Your task to perform on an android device: open app "Mercado Libre" (install if not already installed) Image 0: 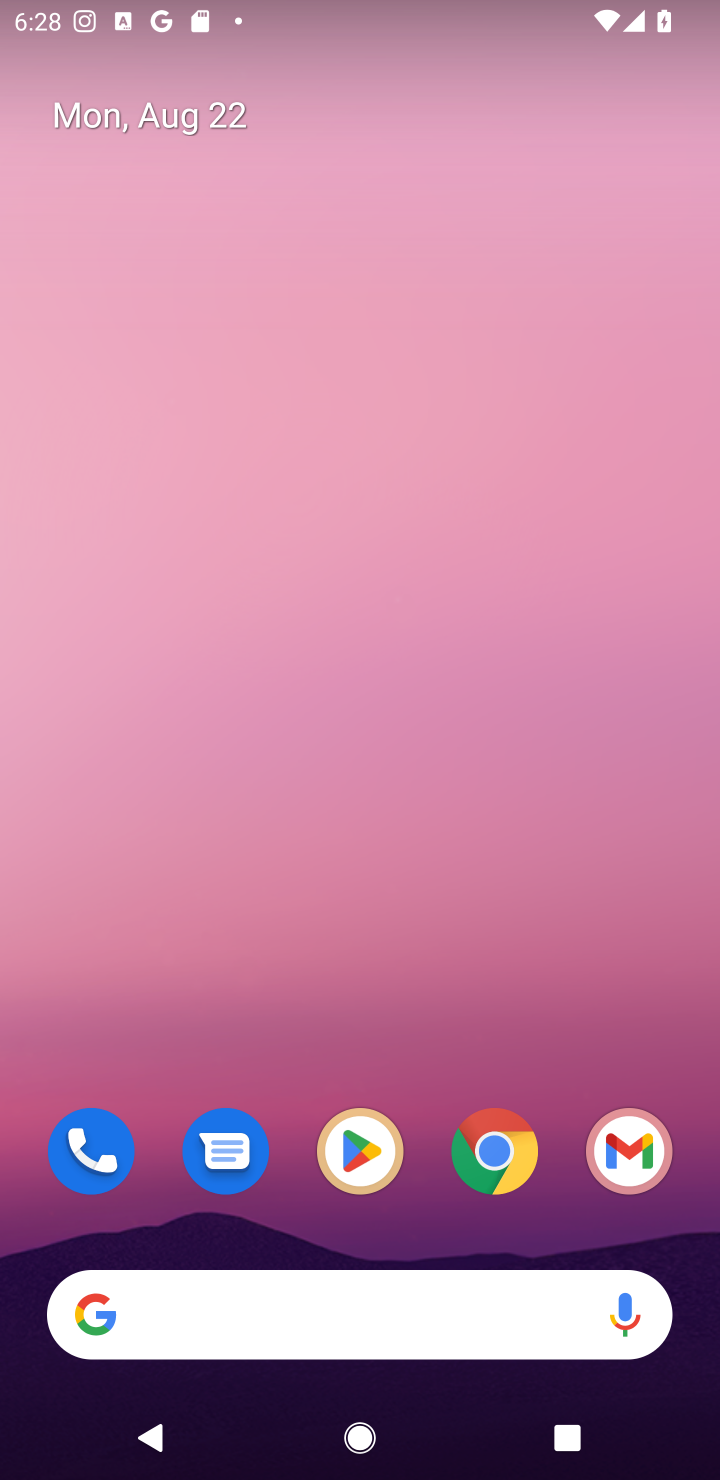
Step 0: click (357, 1148)
Your task to perform on an android device: open app "Mercado Libre" (install if not already installed) Image 1: 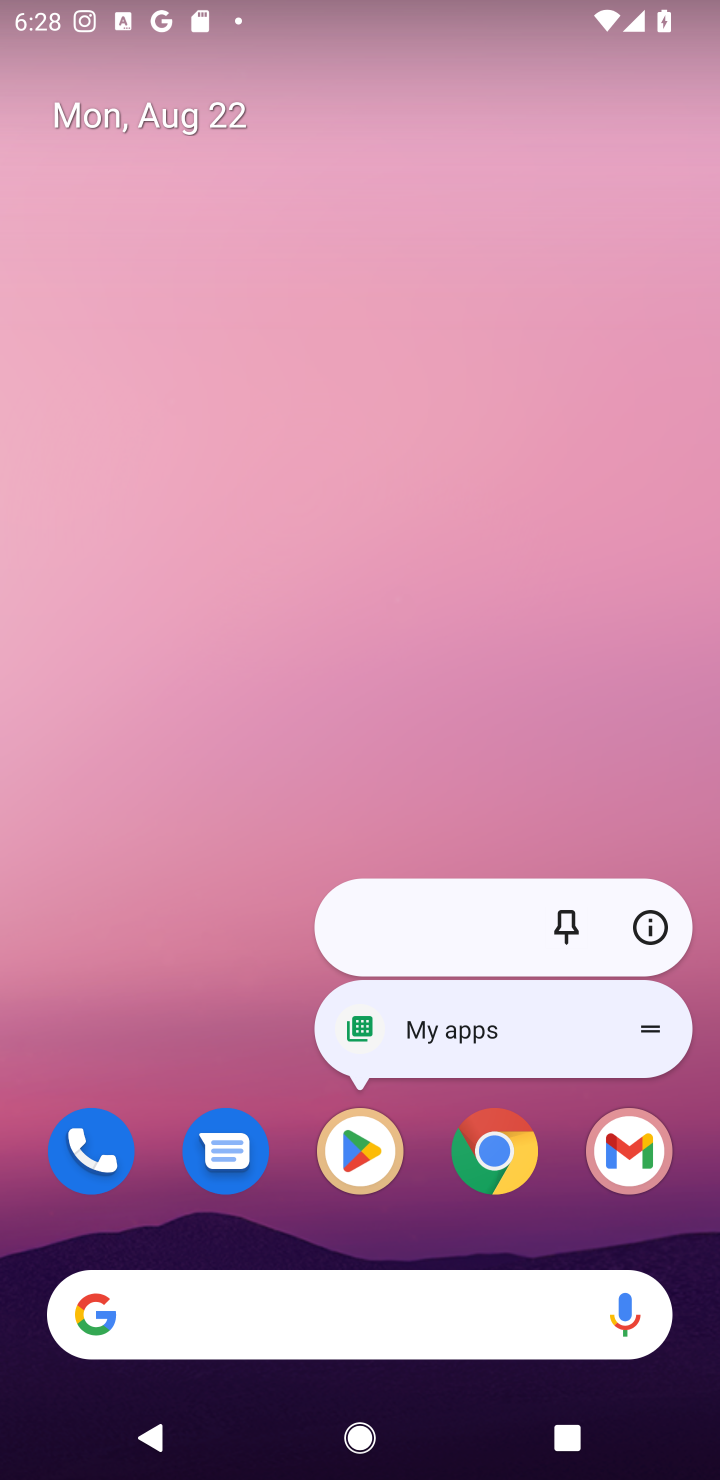
Step 1: click (357, 1150)
Your task to perform on an android device: open app "Mercado Libre" (install if not already installed) Image 2: 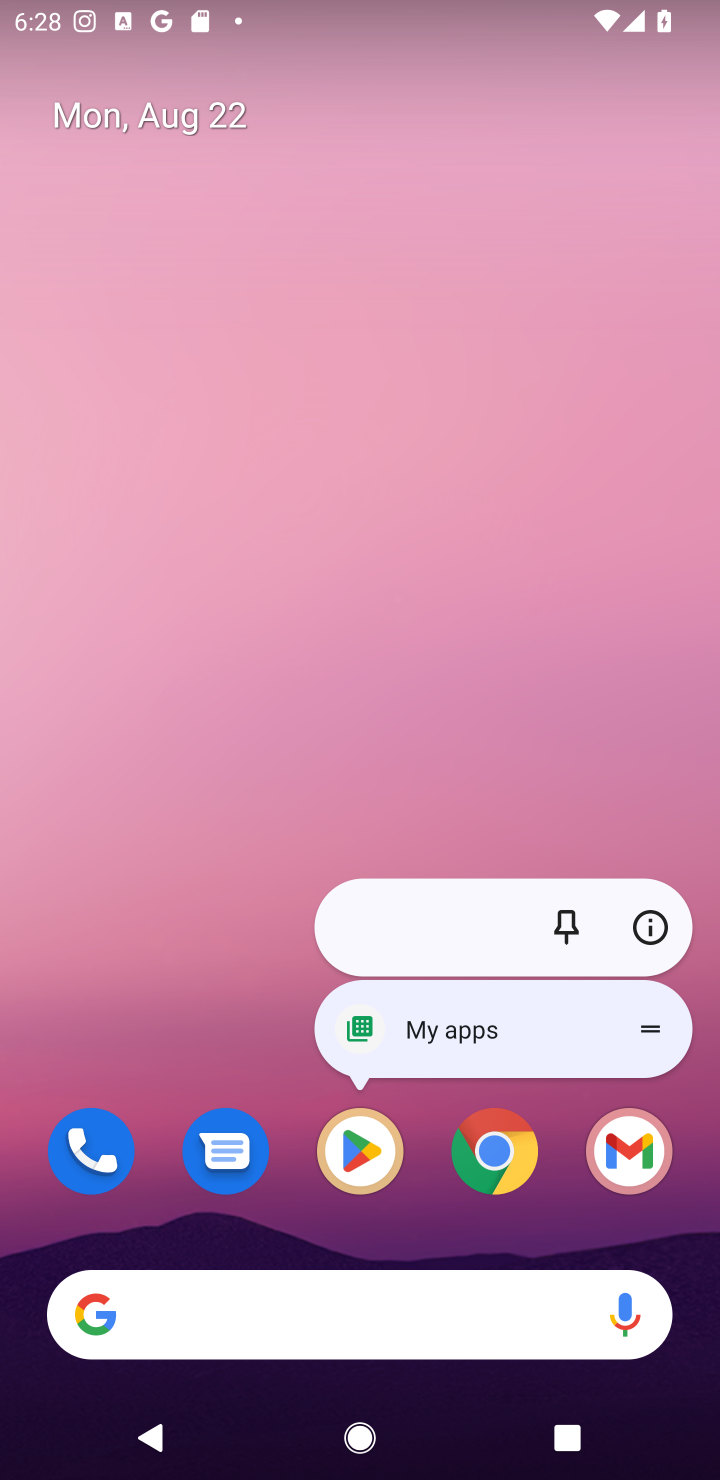
Step 2: click (357, 1161)
Your task to perform on an android device: open app "Mercado Libre" (install if not already installed) Image 3: 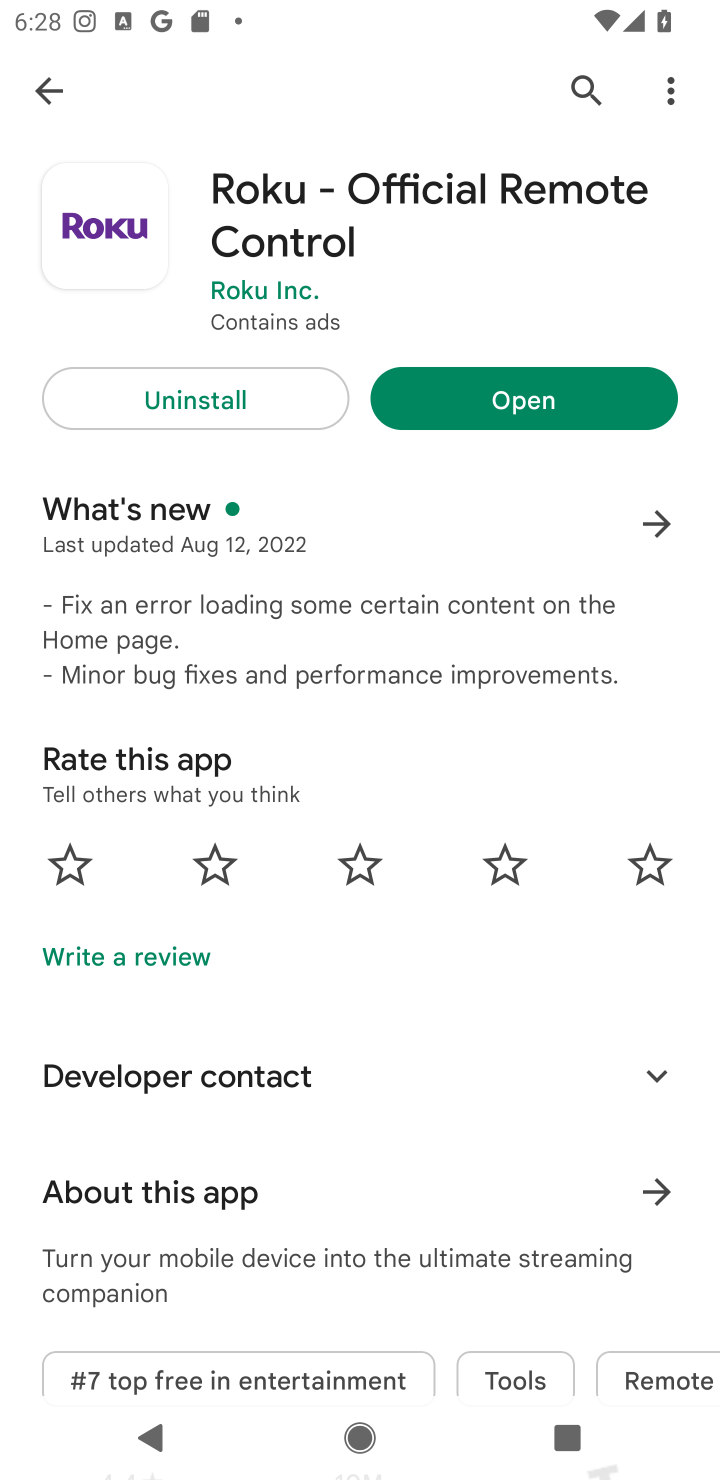
Step 3: click (586, 82)
Your task to perform on an android device: open app "Mercado Libre" (install if not already installed) Image 4: 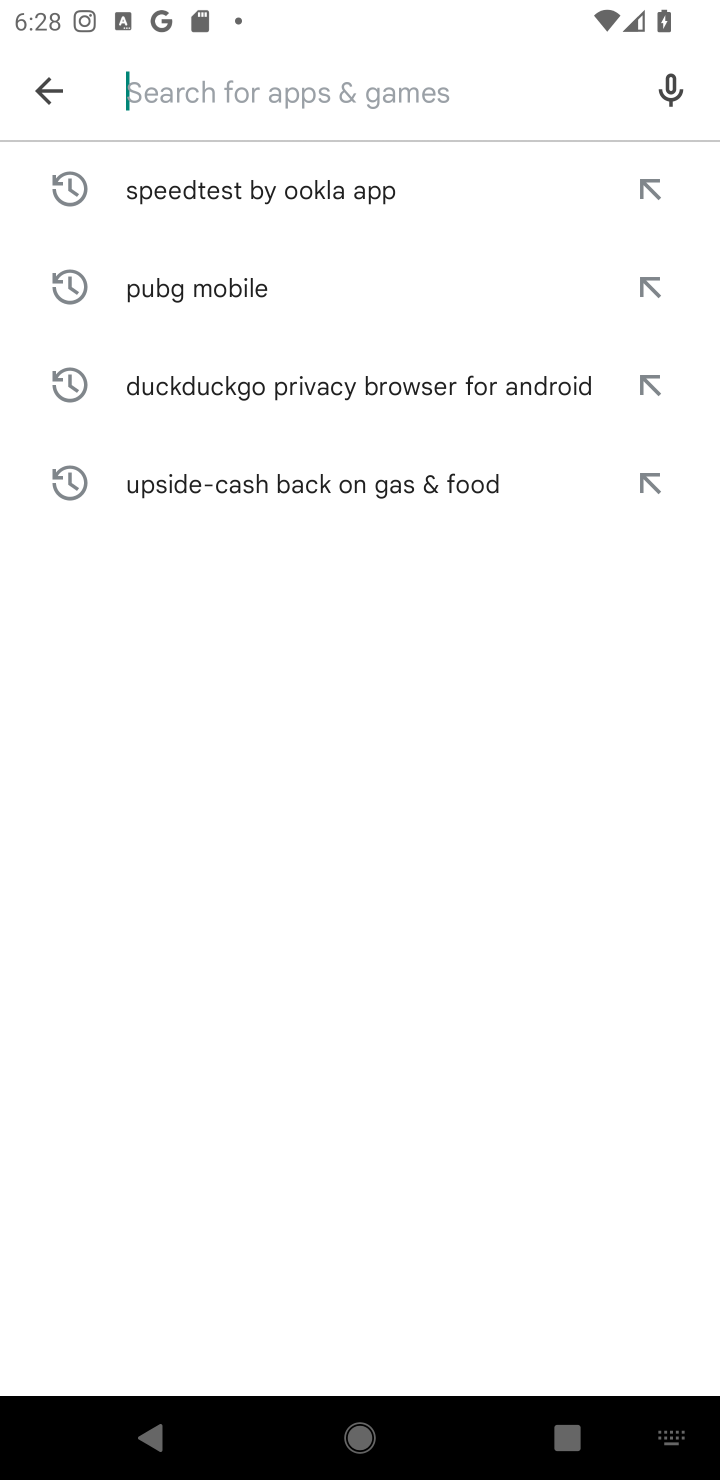
Step 4: type "Mercado Libre"
Your task to perform on an android device: open app "Mercado Libre" (install if not already installed) Image 5: 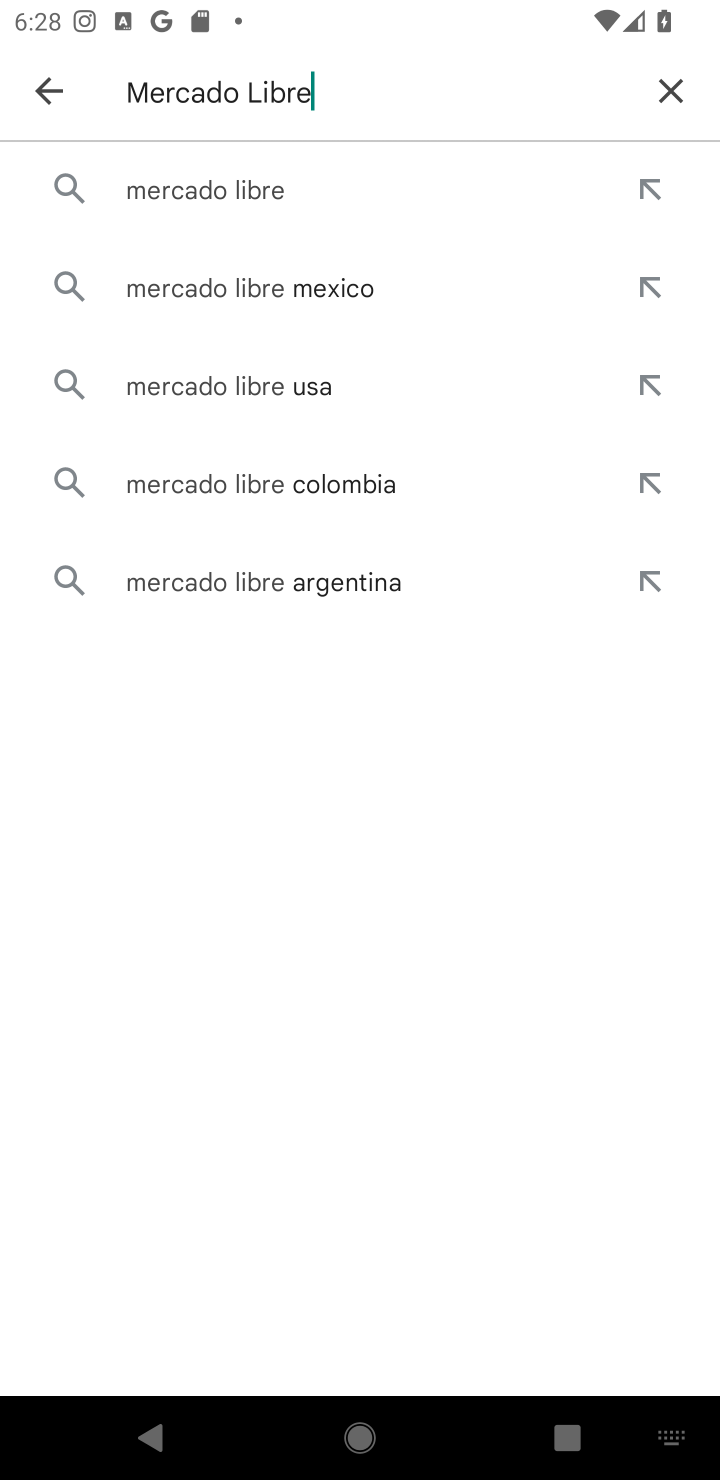
Step 5: click (258, 191)
Your task to perform on an android device: open app "Mercado Libre" (install if not already installed) Image 6: 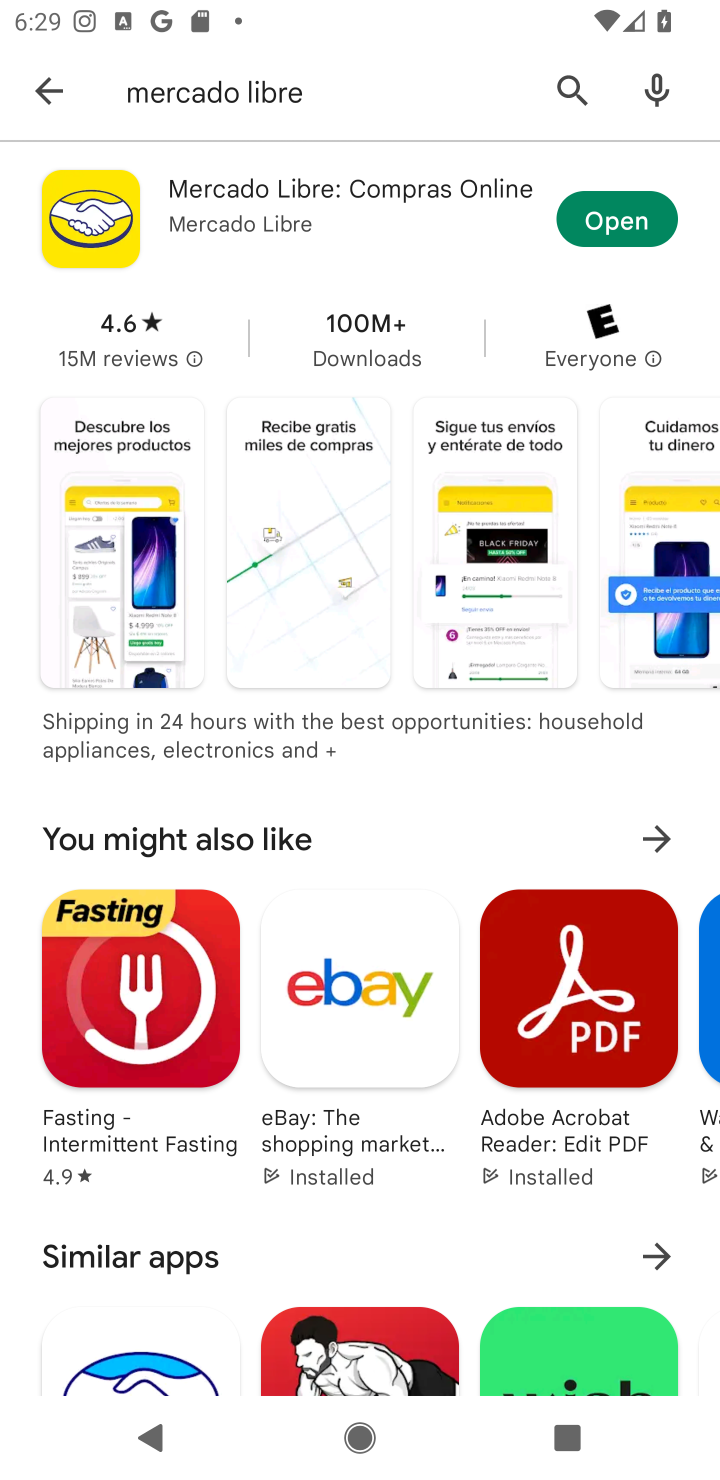
Step 6: click (602, 219)
Your task to perform on an android device: open app "Mercado Libre" (install if not already installed) Image 7: 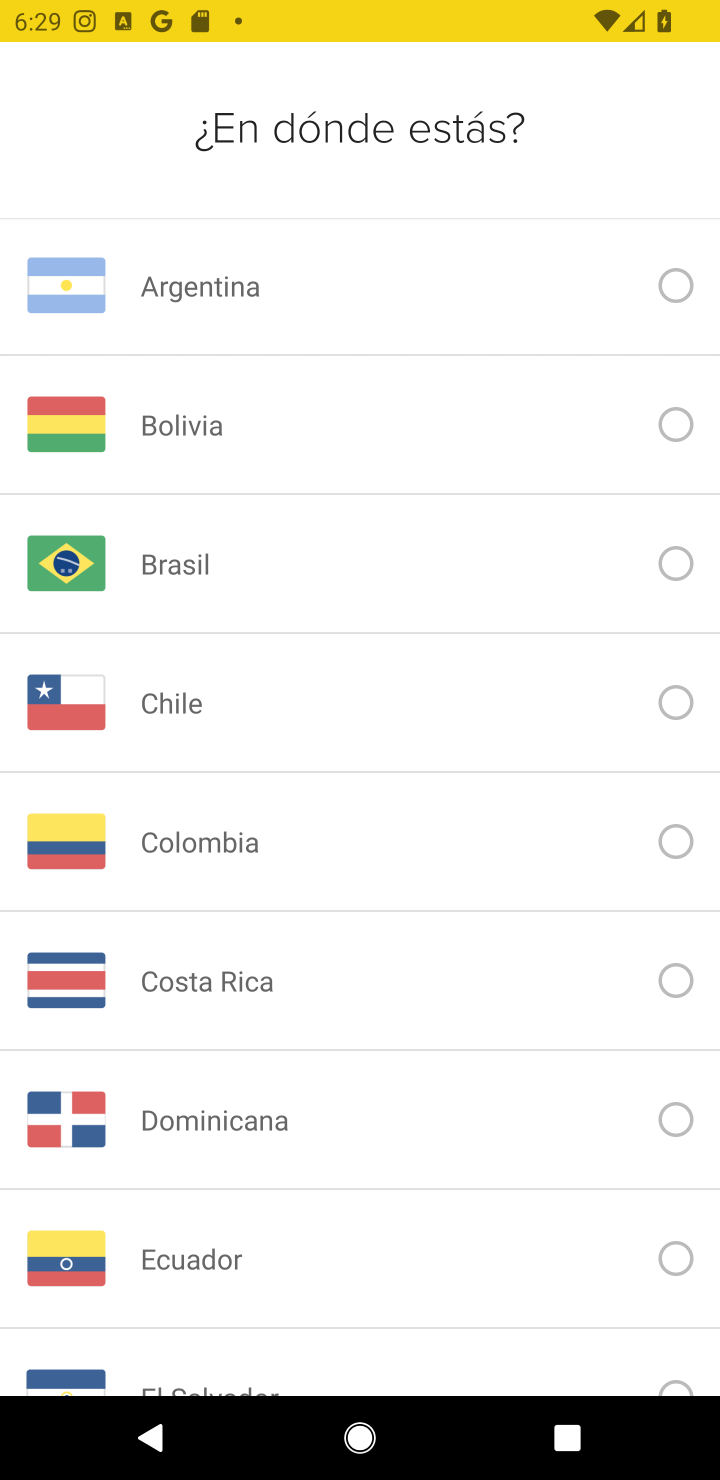
Step 7: task complete